Your task to perform on an android device: toggle pop-ups in chrome Image 0: 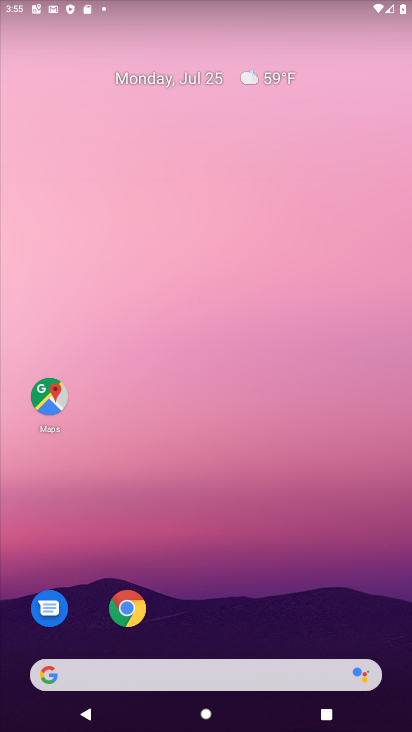
Step 0: drag from (228, 645) to (222, 10)
Your task to perform on an android device: toggle pop-ups in chrome Image 1: 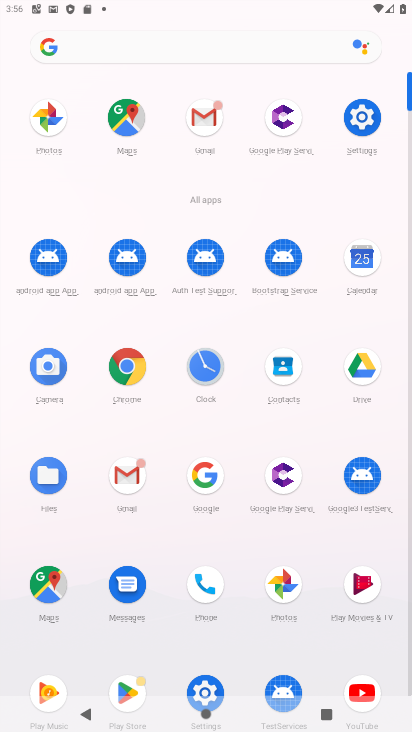
Step 1: click (136, 352)
Your task to perform on an android device: toggle pop-ups in chrome Image 2: 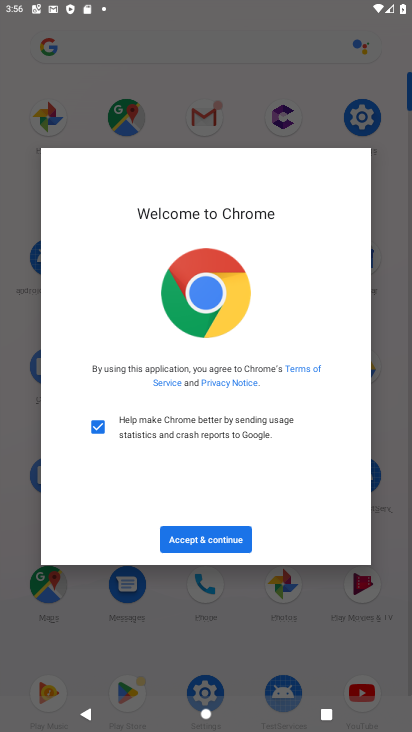
Step 2: click (179, 551)
Your task to perform on an android device: toggle pop-ups in chrome Image 3: 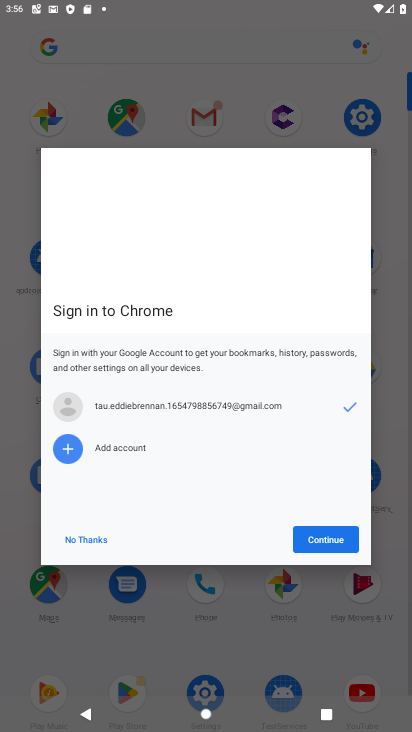
Step 3: click (318, 522)
Your task to perform on an android device: toggle pop-ups in chrome Image 4: 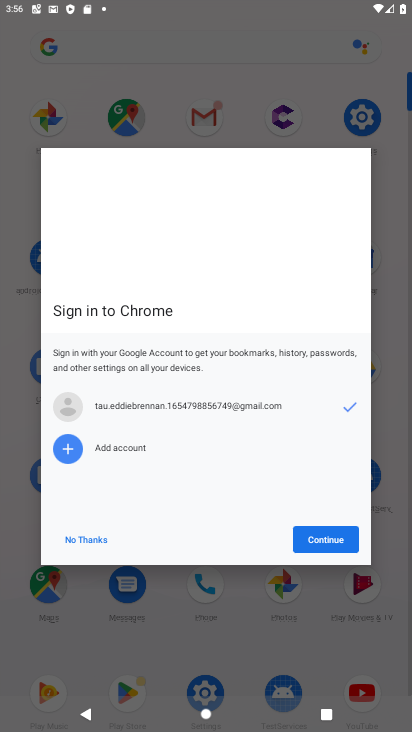
Step 4: click (342, 544)
Your task to perform on an android device: toggle pop-ups in chrome Image 5: 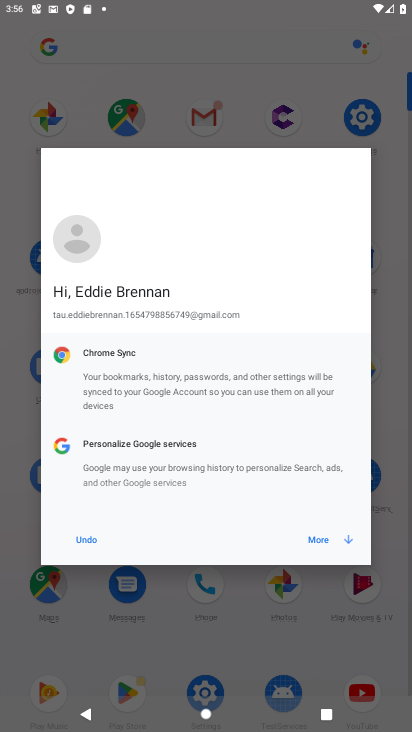
Step 5: click (338, 547)
Your task to perform on an android device: toggle pop-ups in chrome Image 6: 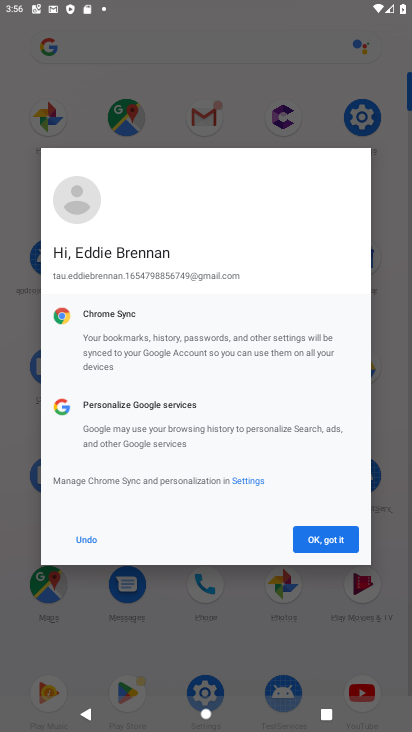
Step 6: click (338, 547)
Your task to perform on an android device: toggle pop-ups in chrome Image 7: 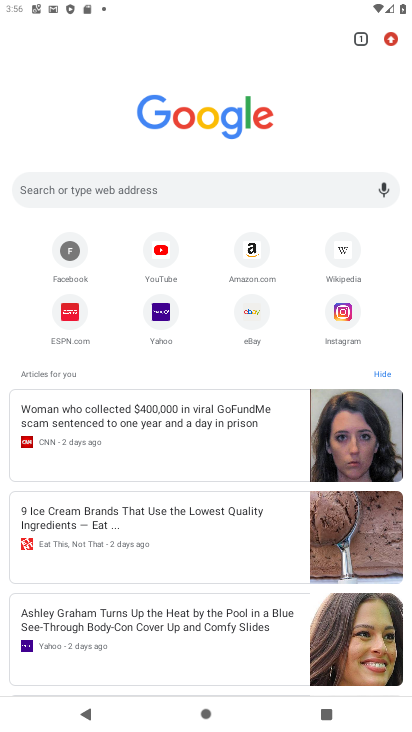
Step 7: drag from (392, 51) to (262, 373)
Your task to perform on an android device: toggle pop-ups in chrome Image 8: 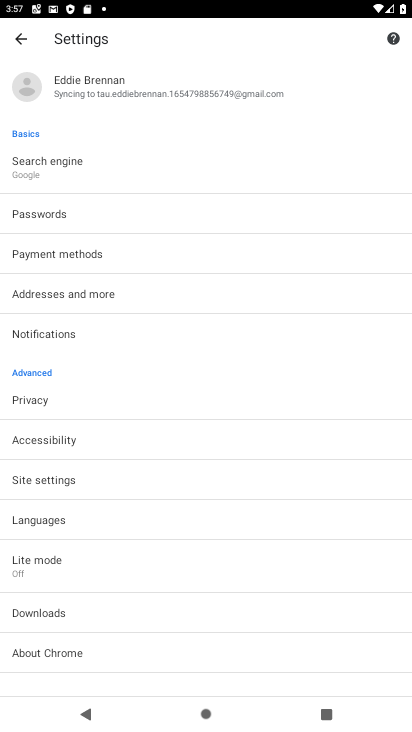
Step 8: click (18, 482)
Your task to perform on an android device: toggle pop-ups in chrome Image 9: 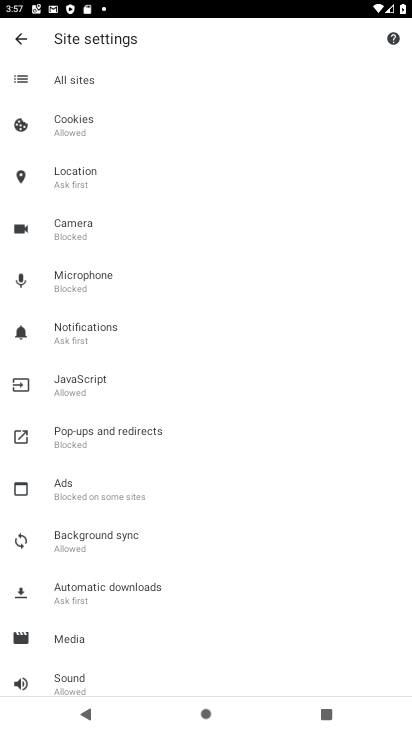
Step 9: click (55, 435)
Your task to perform on an android device: toggle pop-ups in chrome Image 10: 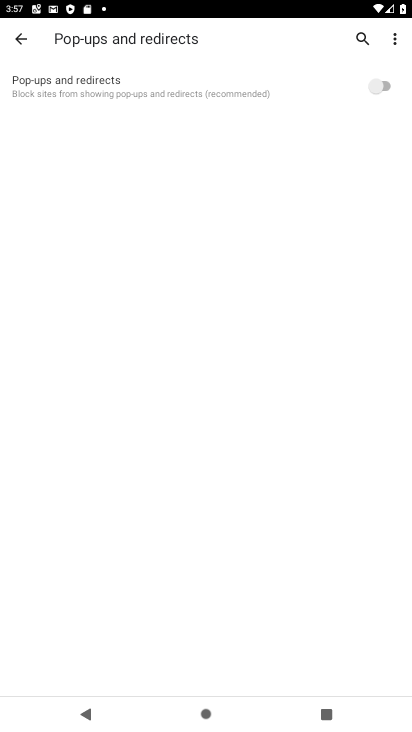
Step 10: click (386, 86)
Your task to perform on an android device: toggle pop-ups in chrome Image 11: 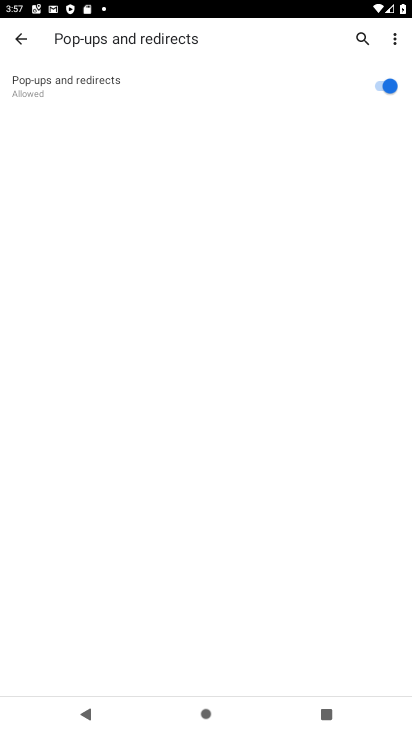
Step 11: task complete